Your task to perform on an android device: Open CNN.com Image 0: 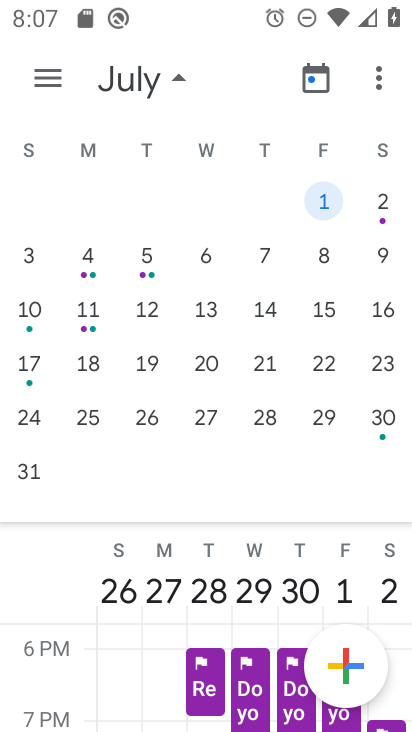
Step 0: press home button
Your task to perform on an android device: Open CNN.com Image 1: 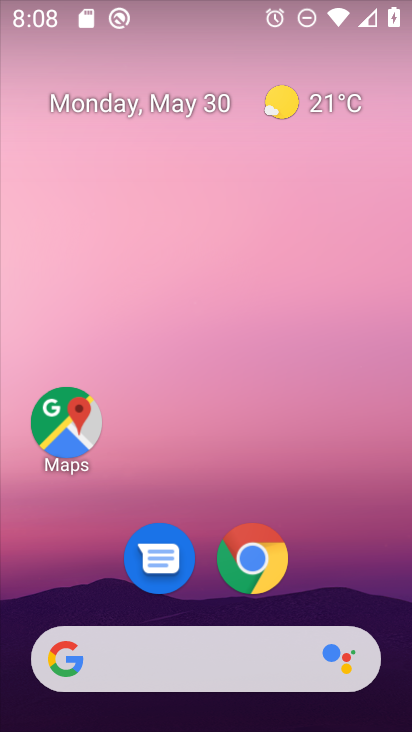
Step 1: click (282, 551)
Your task to perform on an android device: Open CNN.com Image 2: 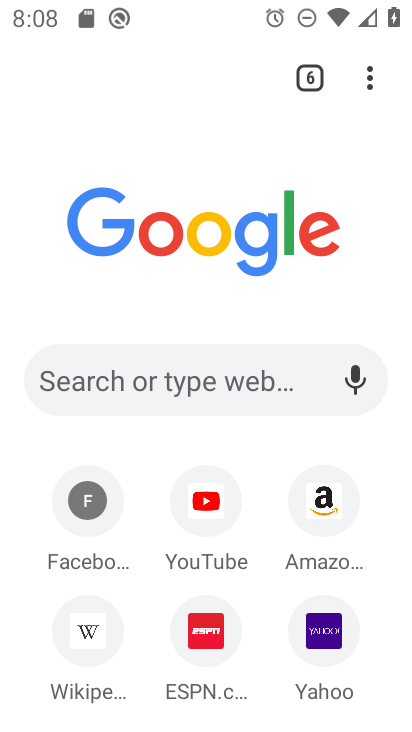
Step 2: click (133, 376)
Your task to perform on an android device: Open CNN.com Image 3: 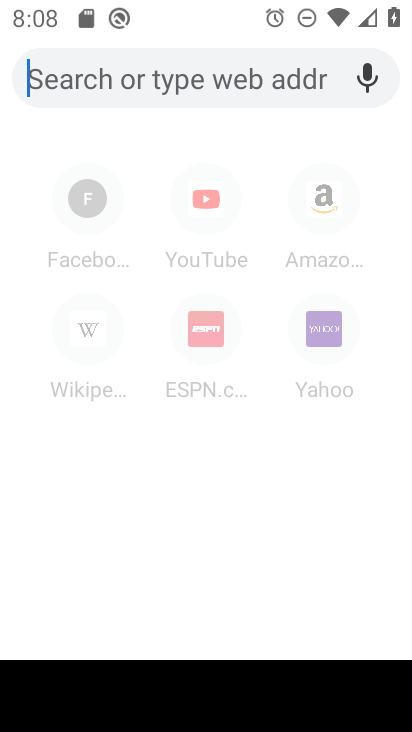
Step 3: type "cnn.com"
Your task to perform on an android device: Open CNN.com Image 4: 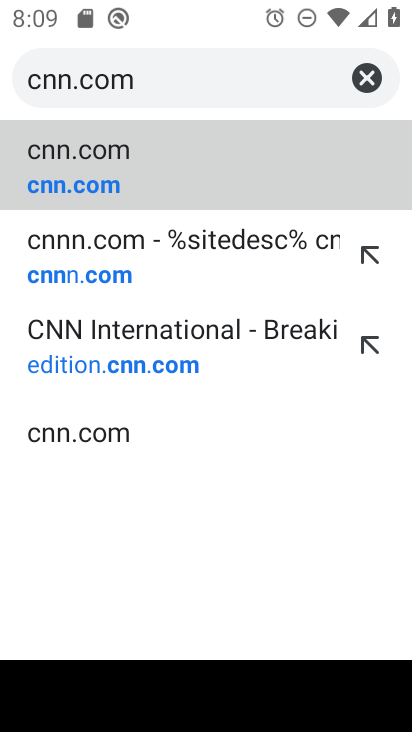
Step 4: click (89, 162)
Your task to perform on an android device: Open CNN.com Image 5: 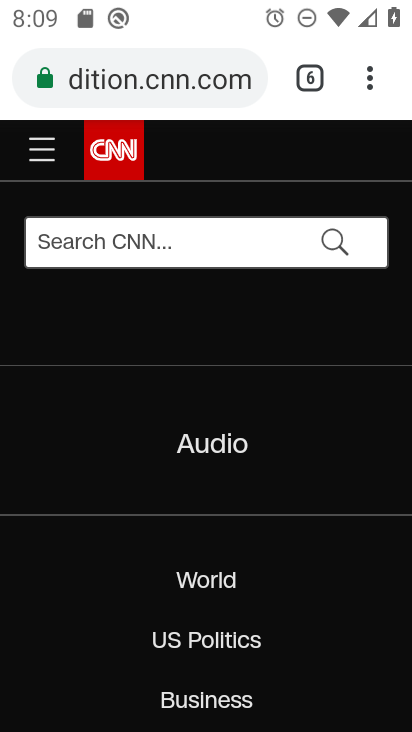
Step 5: task complete